Your task to perform on an android device: Go to privacy settings Image 0: 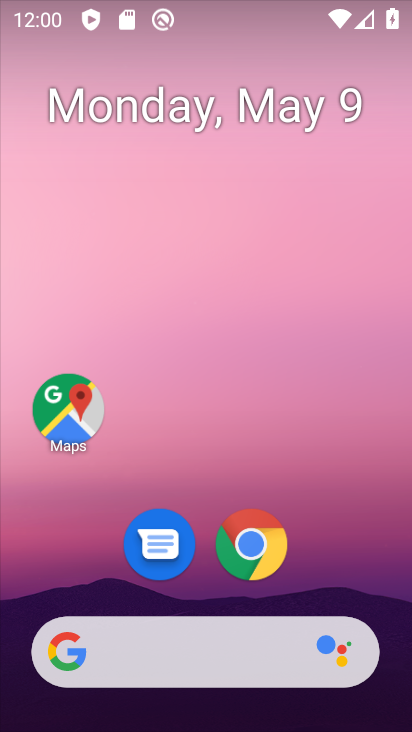
Step 0: drag from (347, 496) to (407, 121)
Your task to perform on an android device: Go to privacy settings Image 1: 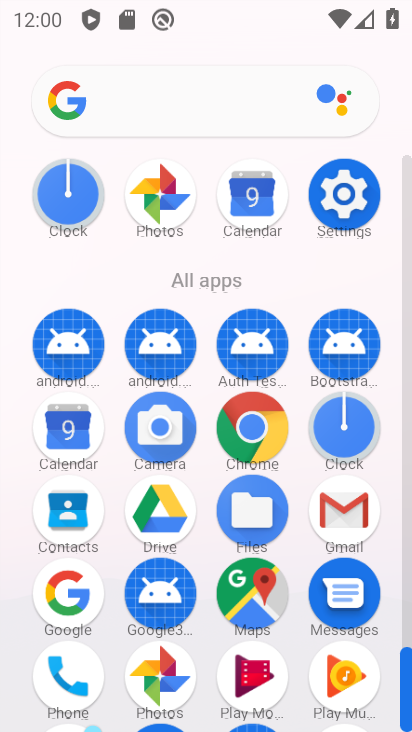
Step 1: click (352, 184)
Your task to perform on an android device: Go to privacy settings Image 2: 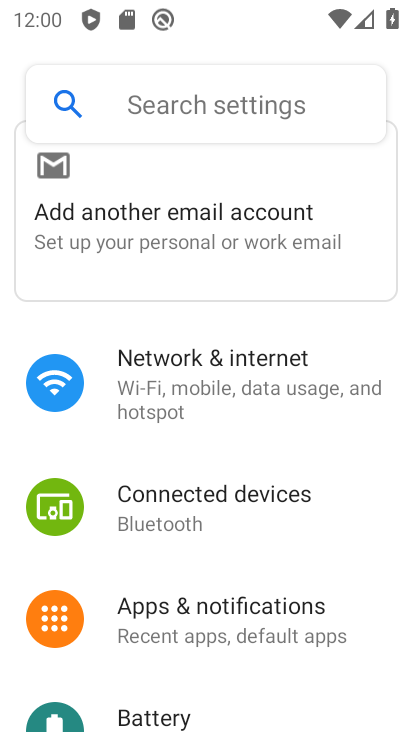
Step 2: drag from (293, 551) to (411, 176)
Your task to perform on an android device: Go to privacy settings Image 3: 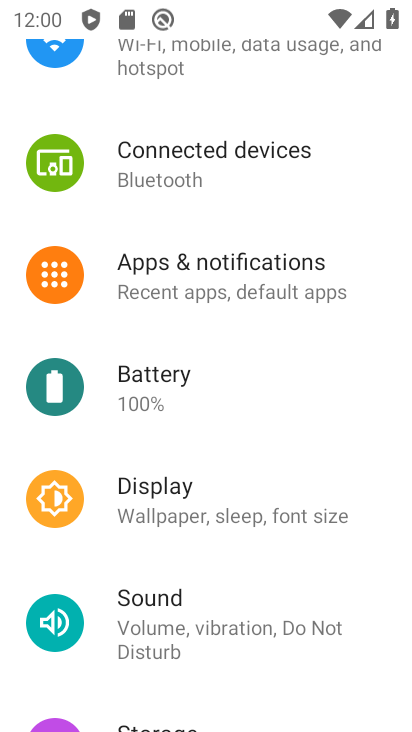
Step 3: drag from (221, 541) to (320, 130)
Your task to perform on an android device: Go to privacy settings Image 4: 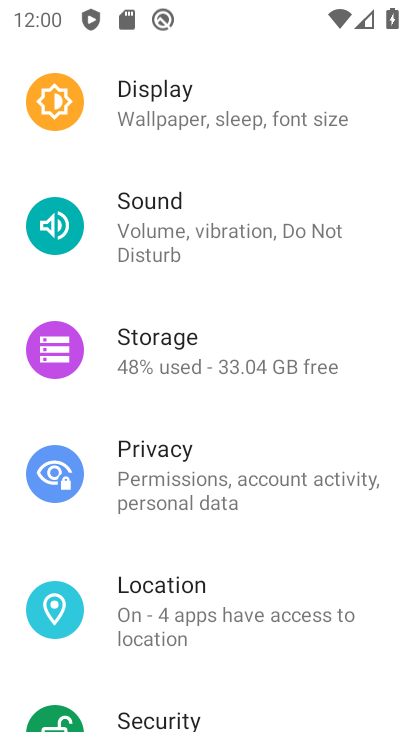
Step 4: drag from (279, 572) to (386, 210)
Your task to perform on an android device: Go to privacy settings Image 5: 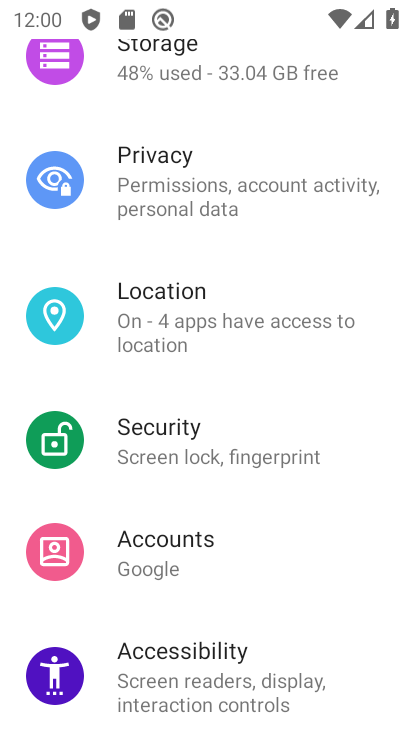
Step 5: drag from (287, 567) to (319, 200)
Your task to perform on an android device: Go to privacy settings Image 6: 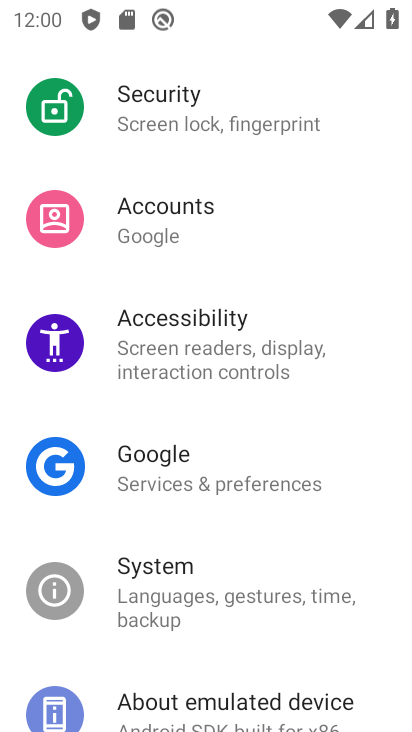
Step 6: drag from (319, 200) to (297, 553)
Your task to perform on an android device: Go to privacy settings Image 7: 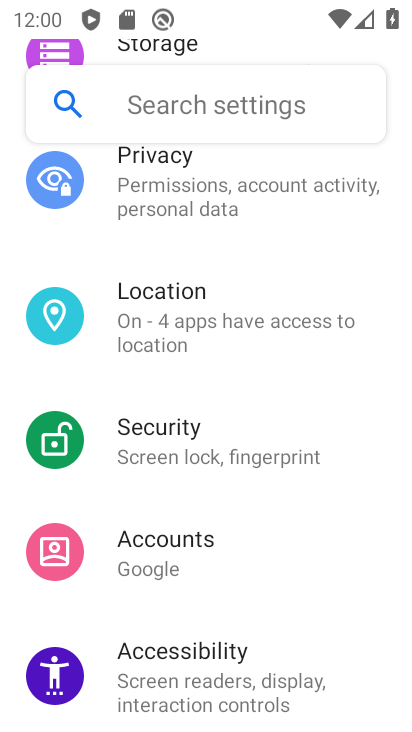
Step 7: drag from (322, 244) to (320, 596)
Your task to perform on an android device: Go to privacy settings Image 8: 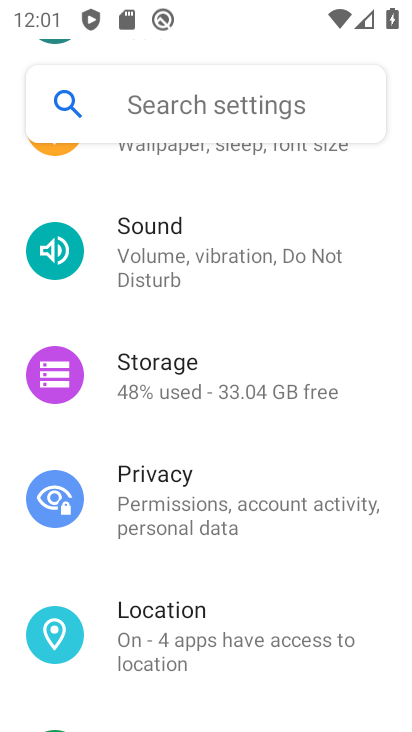
Step 8: drag from (266, 345) to (325, 610)
Your task to perform on an android device: Go to privacy settings Image 9: 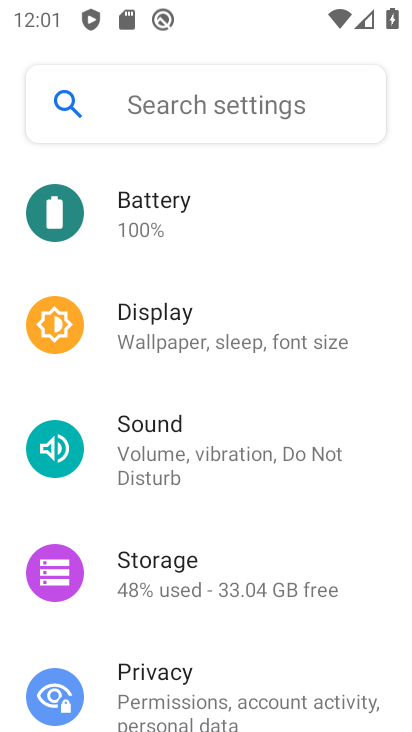
Step 9: drag from (290, 255) to (302, 558)
Your task to perform on an android device: Go to privacy settings Image 10: 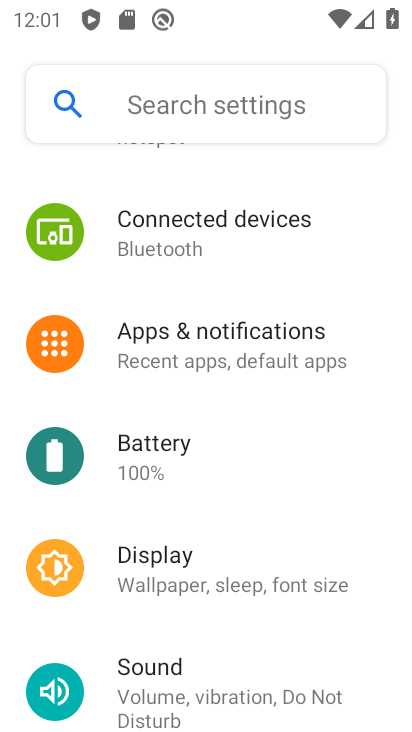
Step 10: drag from (285, 318) to (283, 590)
Your task to perform on an android device: Go to privacy settings Image 11: 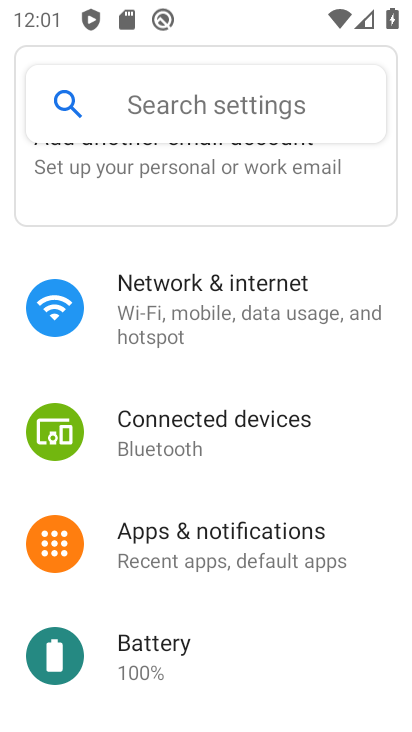
Step 11: drag from (269, 629) to (356, 190)
Your task to perform on an android device: Go to privacy settings Image 12: 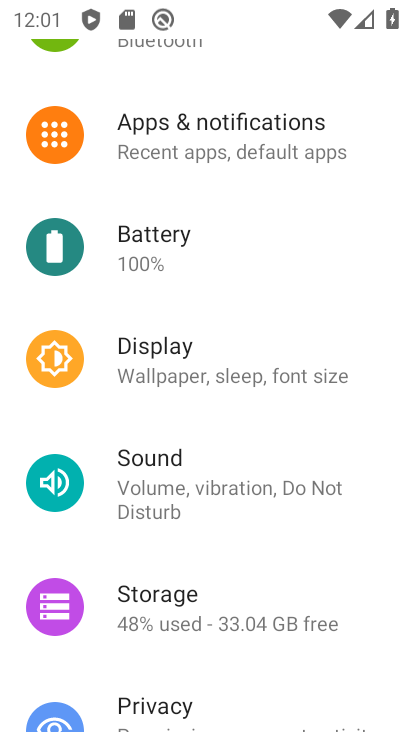
Step 12: drag from (298, 560) to (349, 167)
Your task to perform on an android device: Go to privacy settings Image 13: 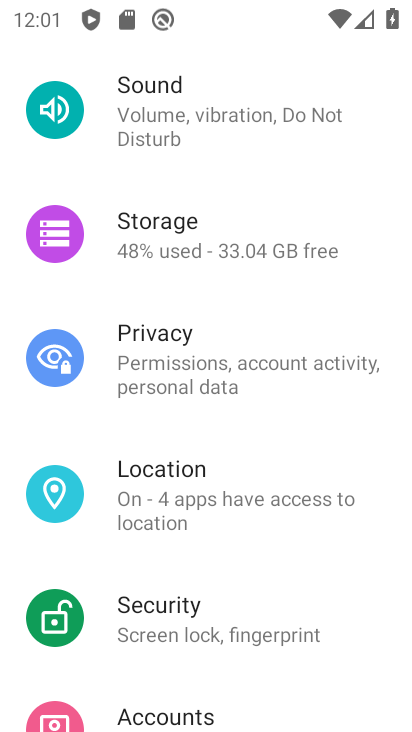
Step 13: click (176, 347)
Your task to perform on an android device: Go to privacy settings Image 14: 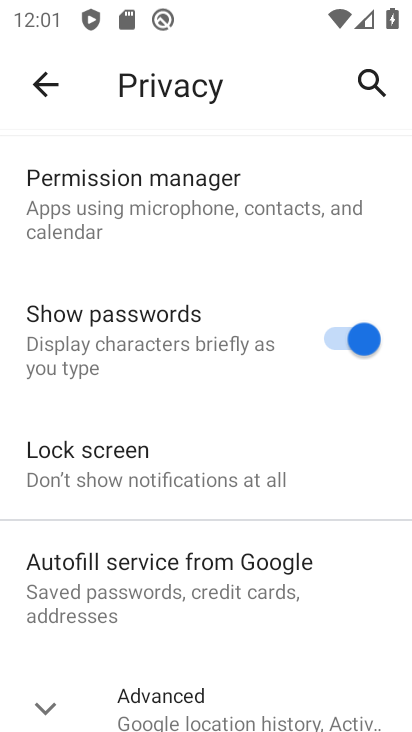
Step 14: task complete